Your task to perform on an android device: turn off airplane mode Image 0: 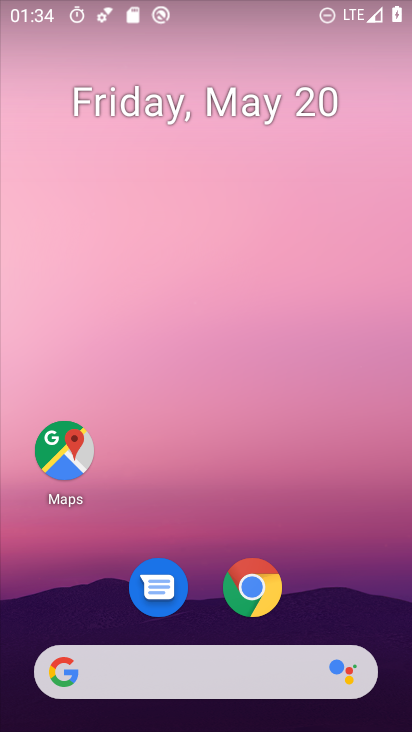
Step 0: drag from (361, 601) to (401, 230)
Your task to perform on an android device: turn off airplane mode Image 1: 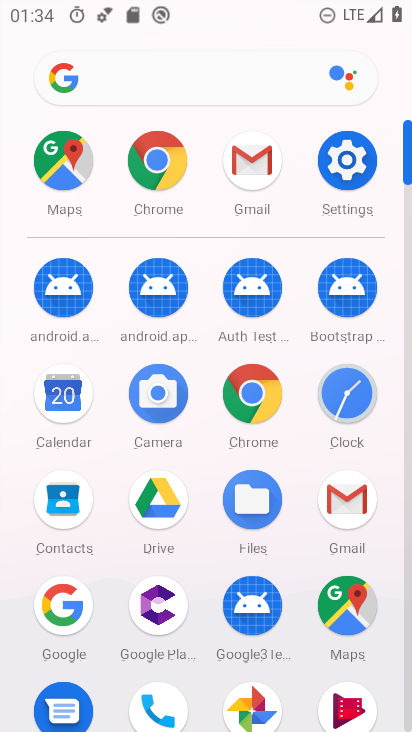
Step 1: click (346, 186)
Your task to perform on an android device: turn off airplane mode Image 2: 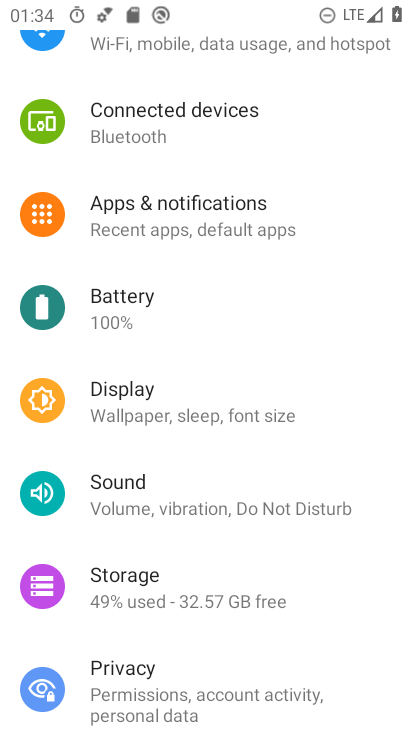
Step 2: drag from (391, 519) to (401, 442)
Your task to perform on an android device: turn off airplane mode Image 3: 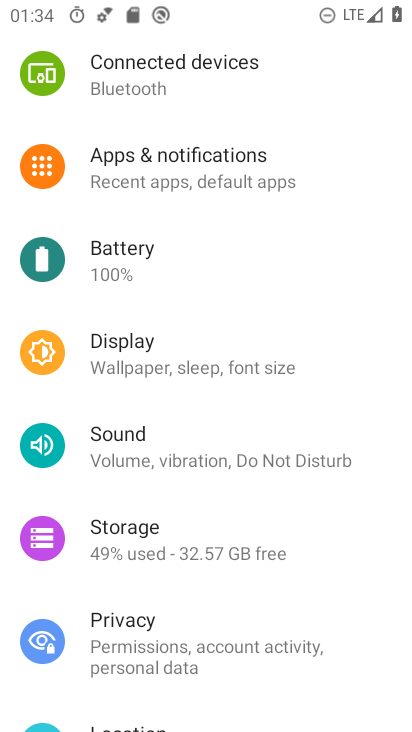
Step 3: drag from (384, 552) to (383, 475)
Your task to perform on an android device: turn off airplane mode Image 4: 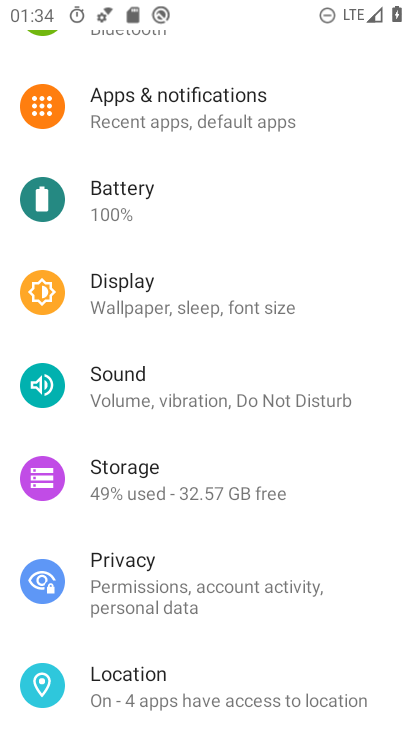
Step 4: drag from (368, 583) to (370, 527)
Your task to perform on an android device: turn off airplane mode Image 5: 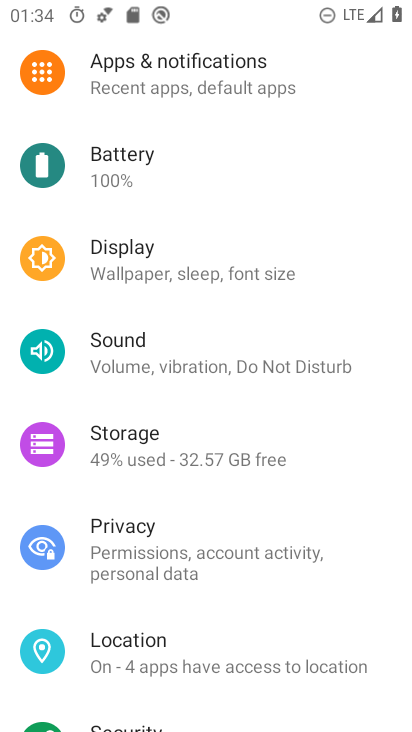
Step 5: drag from (368, 631) to (380, 539)
Your task to perform on an android device: turn off airplane mode Image 6: 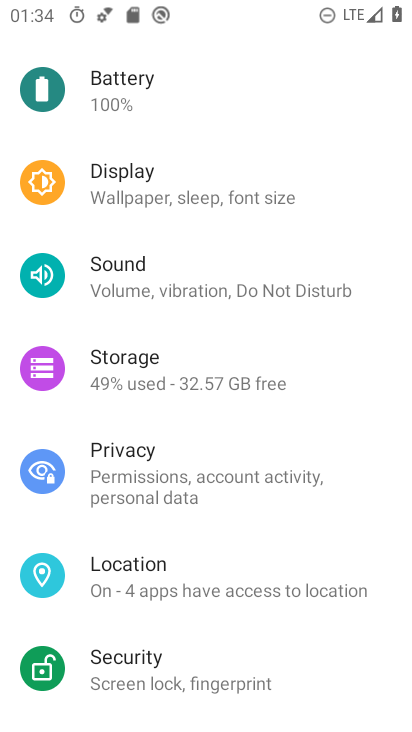
Step 6: drag from (384, 641) to (381, 543)
Your task to perform on an android device: turn off airplane mode Image 7: 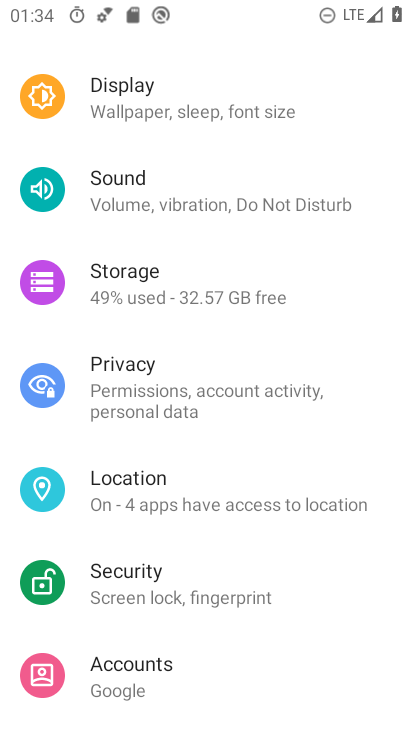
Step 7: drag from (374, 377) to (369, 519)
Your task to perform on an android device: turn off airplane mode Image 8: 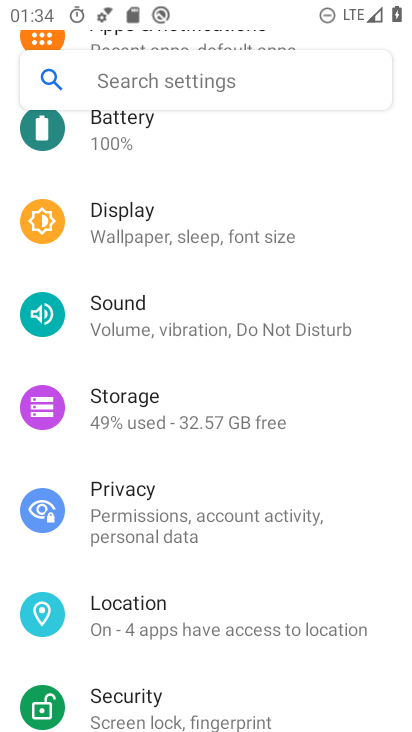
Step 8: drag from (365, 377) to (364, 492)
Your task to perform on an android device: turn off airplane mode Image 9: 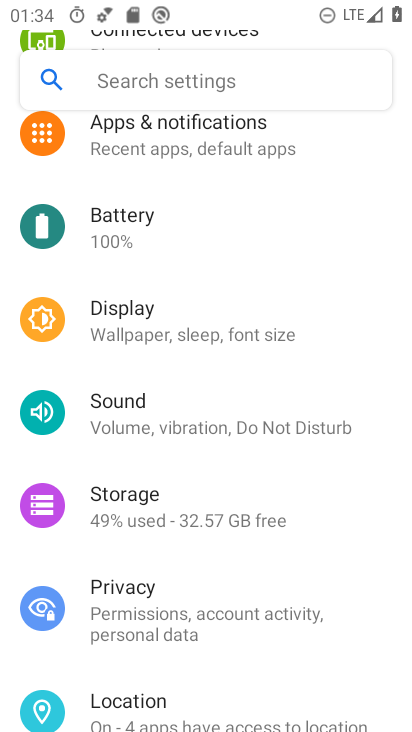
Step 9: drag from (363, 330) to (364, 424)
Your task to perform on an android device: turn off airplane mode Image 10: 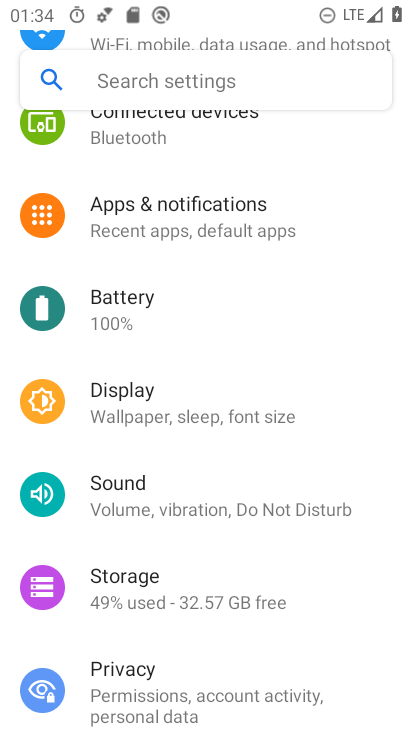
Step 10: drag from (369, 307) to (371, 398)
Your task to perform on an android device: turn off airplane mode Image 11: 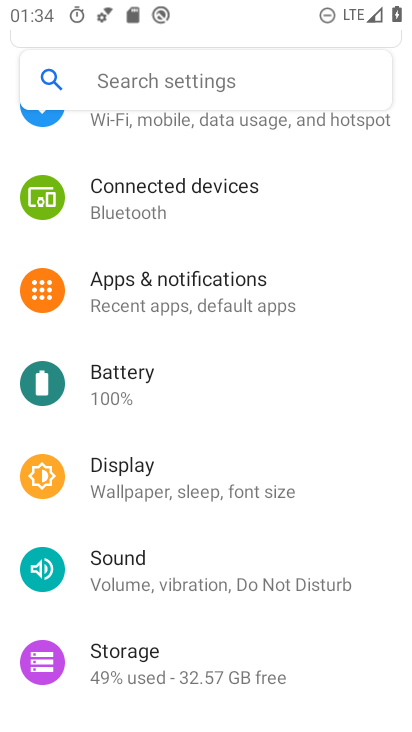
Step 11: drag from (366, 300) to (364, 397)
Your task to perform on an android device: turn off airplane mode Image 12: 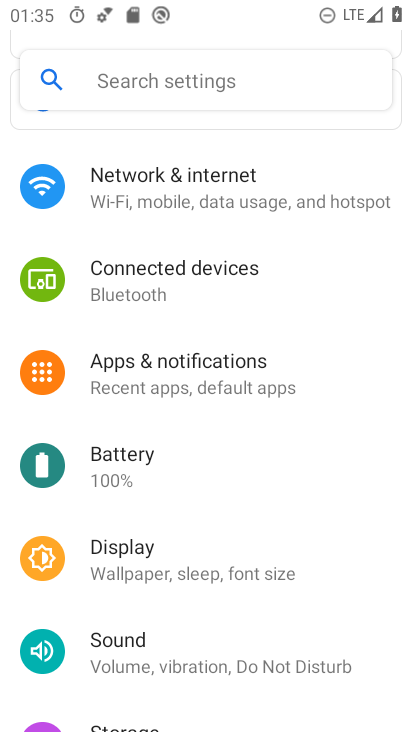
Step 12: drag from (356, 299) to (354, 382)
Your task to perform on an android device: turn off airplane mode Image 13: 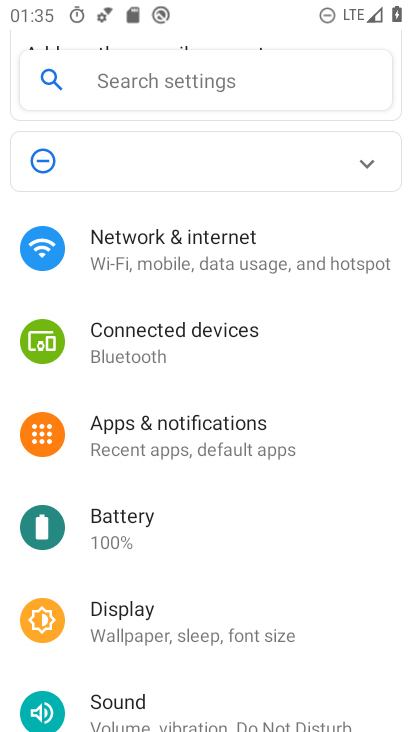
Step 13: drag from (350, 265) to (352, 370)
Your task to perform on an android device: turn off airplane mode Image 14: 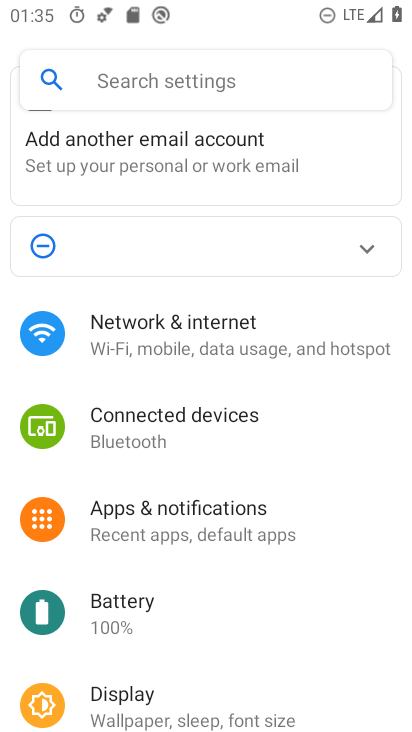
Step 14: click (332, 355)
Your task to perform on an android device: turn off airplane mode Image 15: 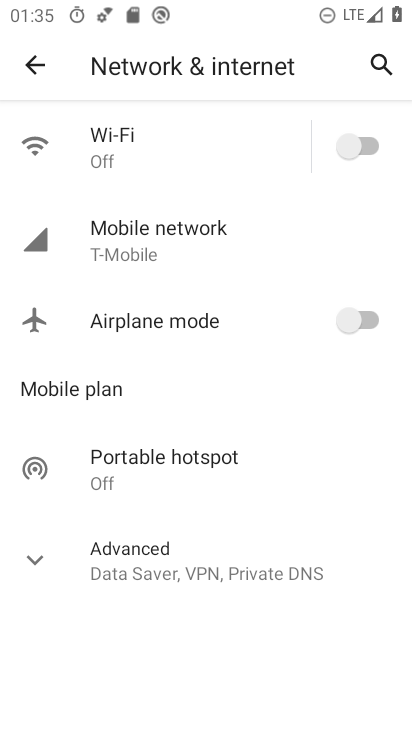
Step 15: task complete